Your task to perform on an android device: Add asus zenbook to the cart on amazon.com Image 0: 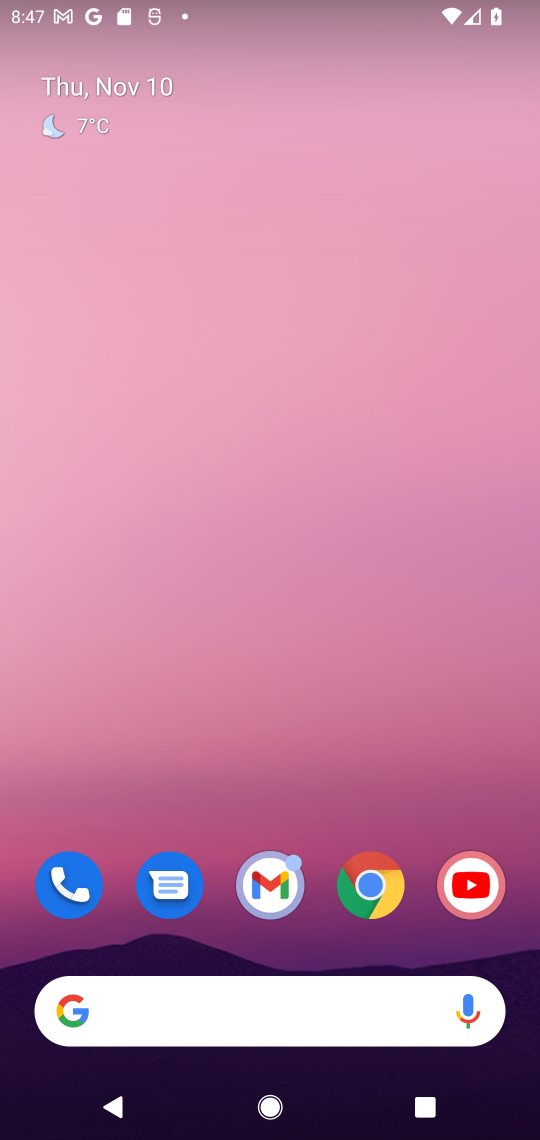
Step 0: click (374, 879)
Your task to perform on an android device: Add asus zenbook to the cart on amazon.com Image 1: 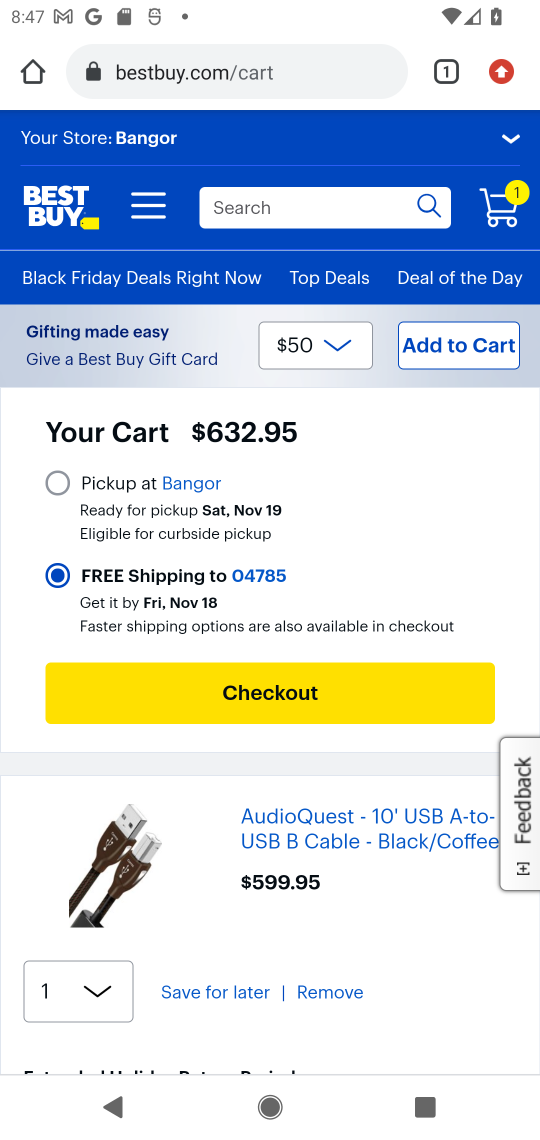
Step 1: click (343, 83)
Your task to perform on an android device: Add asus zenbook to the cart on amazon.com Image 2: 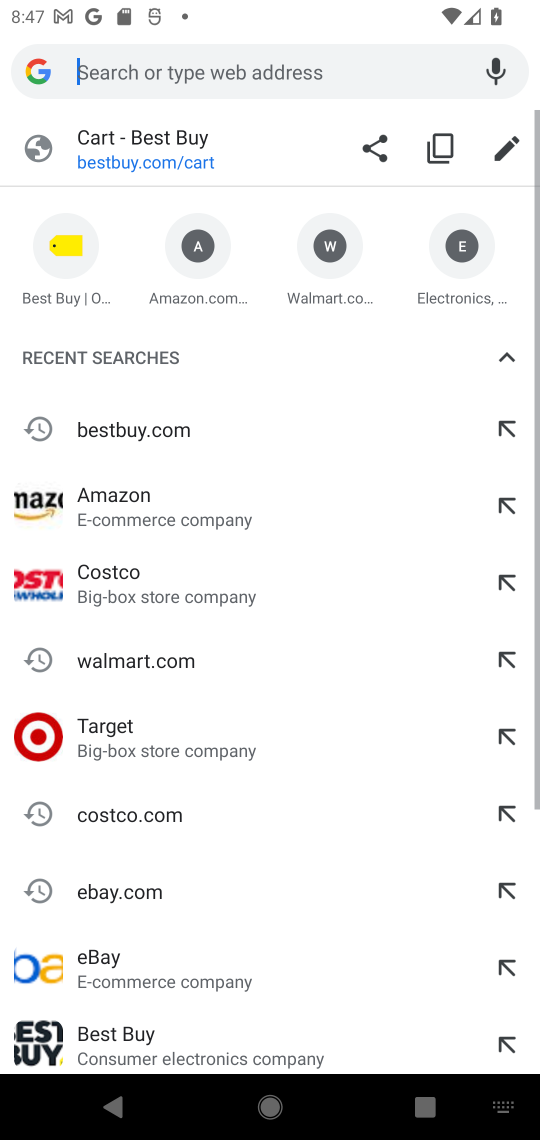
Step 2: click (200, 247)
Your task to perform on an android device: Add asus zenbook to the cart on amazon.com Image 3: 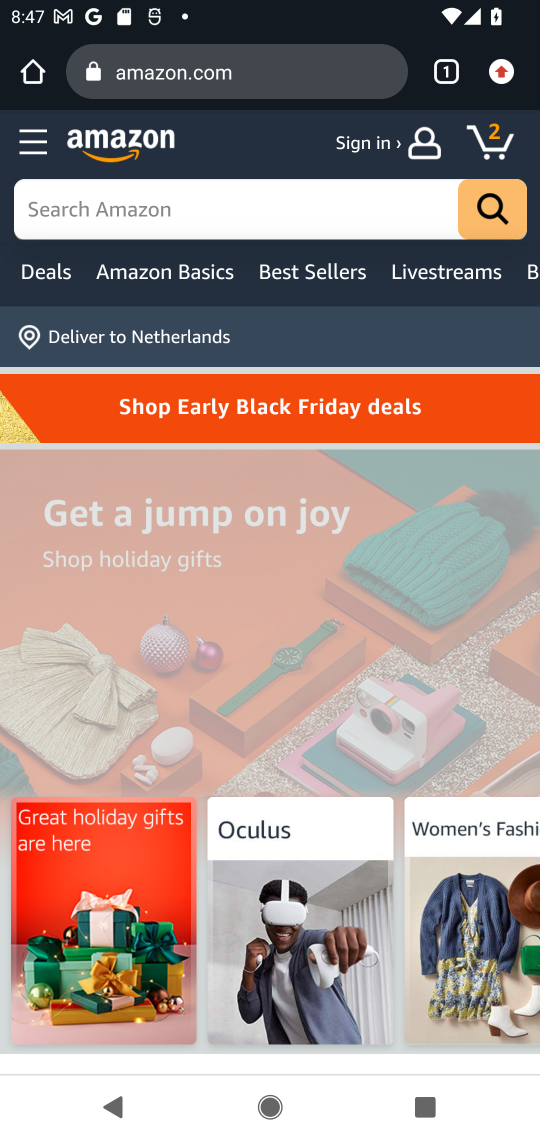
Step 3: click (107, 195)
Your task to perform on an android device: Add asus zenbook to the cart on amazon.com Image 4: 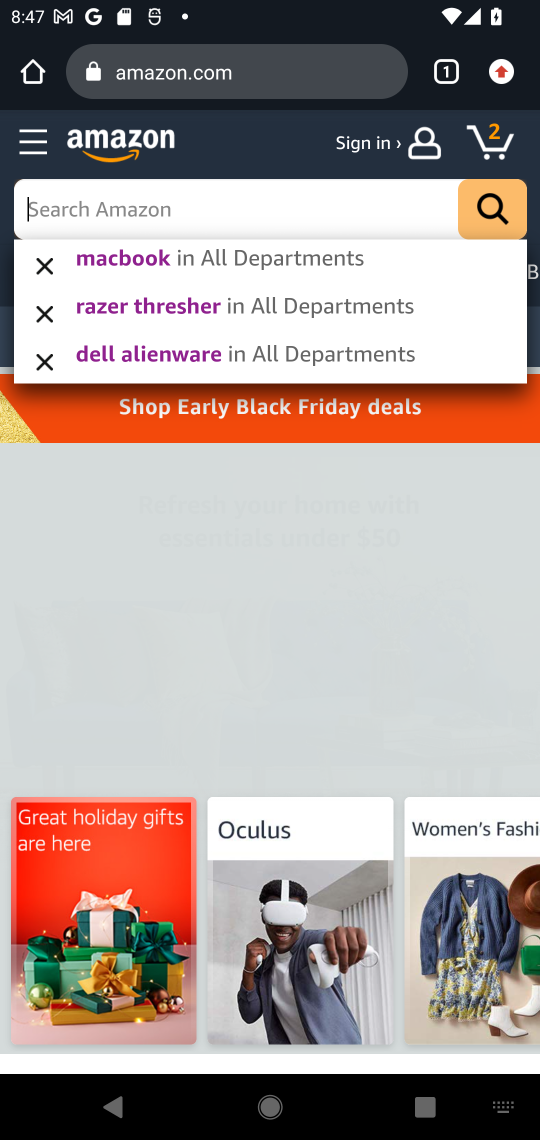
Step 4: type "asus zenbook"
Your task to perform on an android device: Add asus zenbook to the cart on amazon.com Image 5: 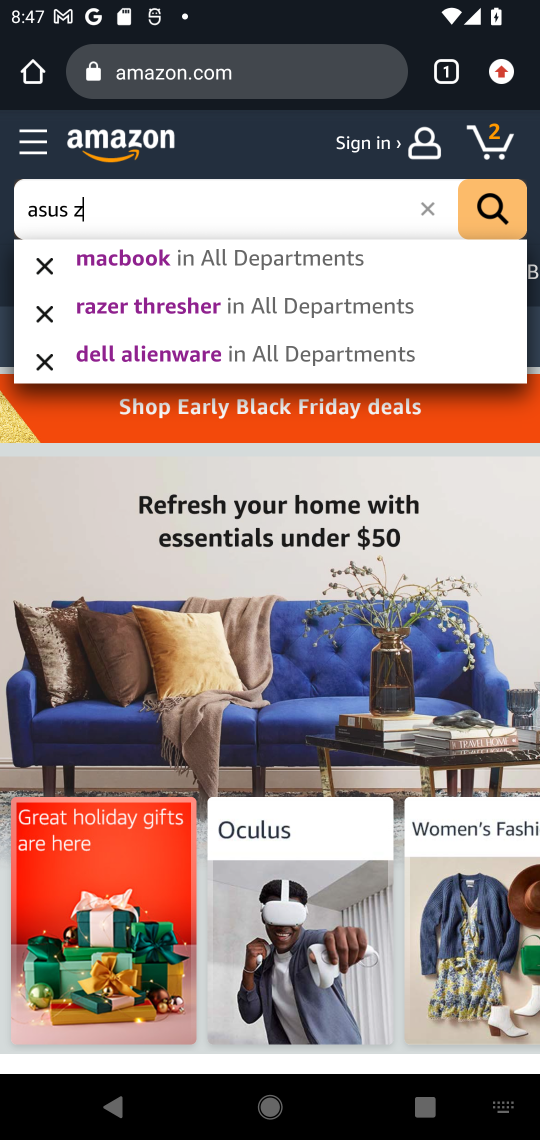
Step 5: press enter
Your task to perform on an android device: Add asus zenbook to the cart on amazon.com Image 6: 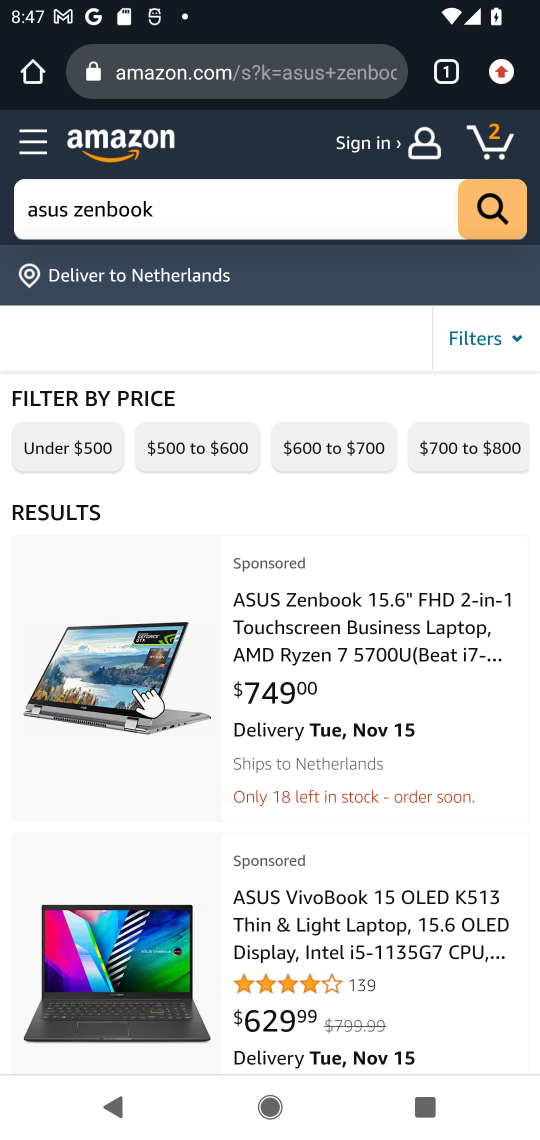
Step 6: click (110, 696)
Your task to perform on an android device: Add asus zenbook to the cart on amazon.com Image 7: 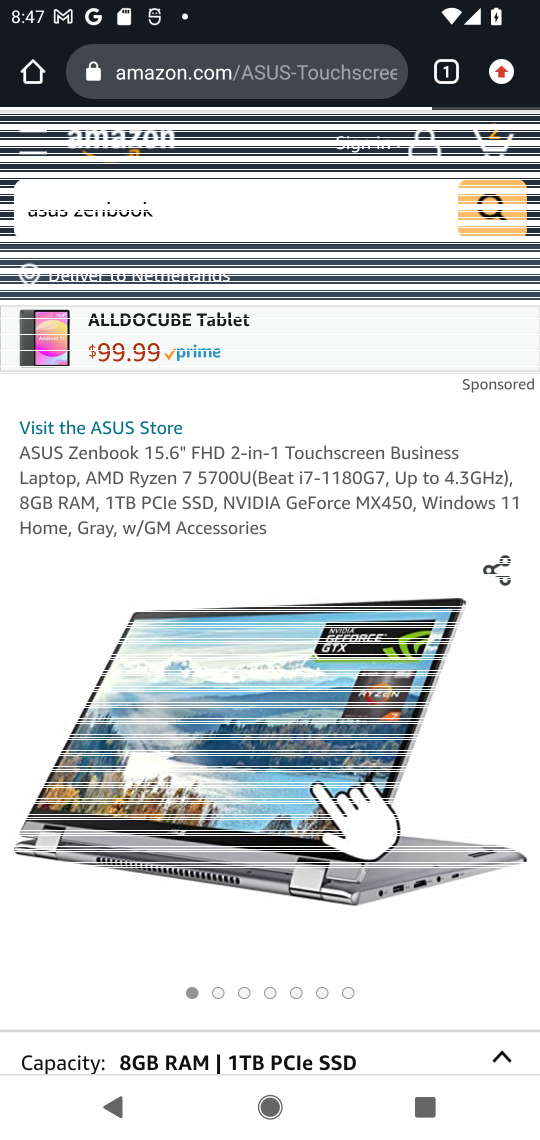
Step 7: drag from (427, 959) to (405, 558)
Your task to perform on an android device: Add asus zenbook to the cart on amazon.com Image 8: 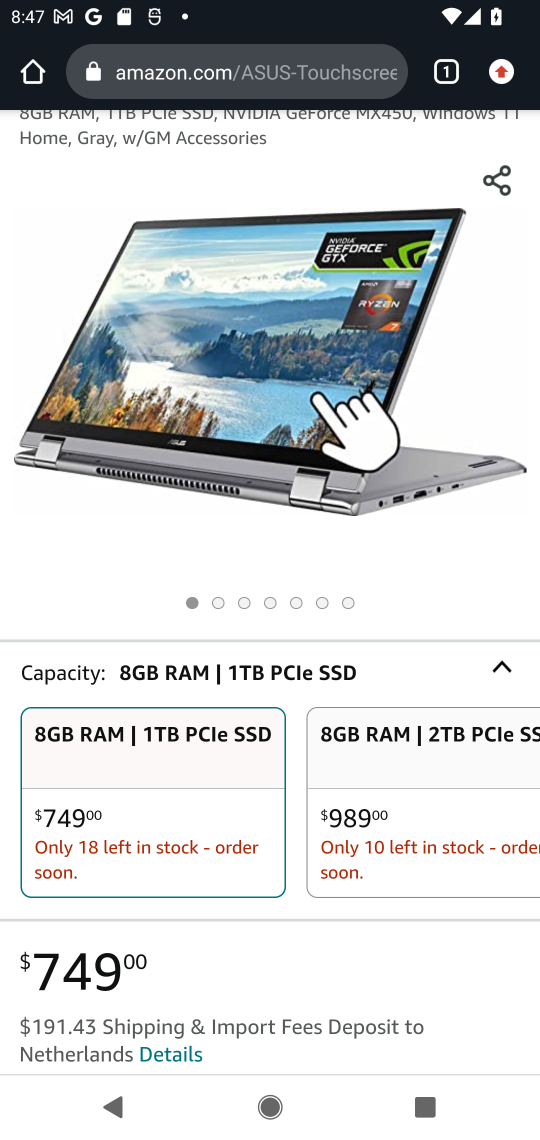
Step 8: drag from (467, 964) to (417, 307)
Your task to perform on an android device: Add asus zenbook to the cart on amazon.com Image 9: 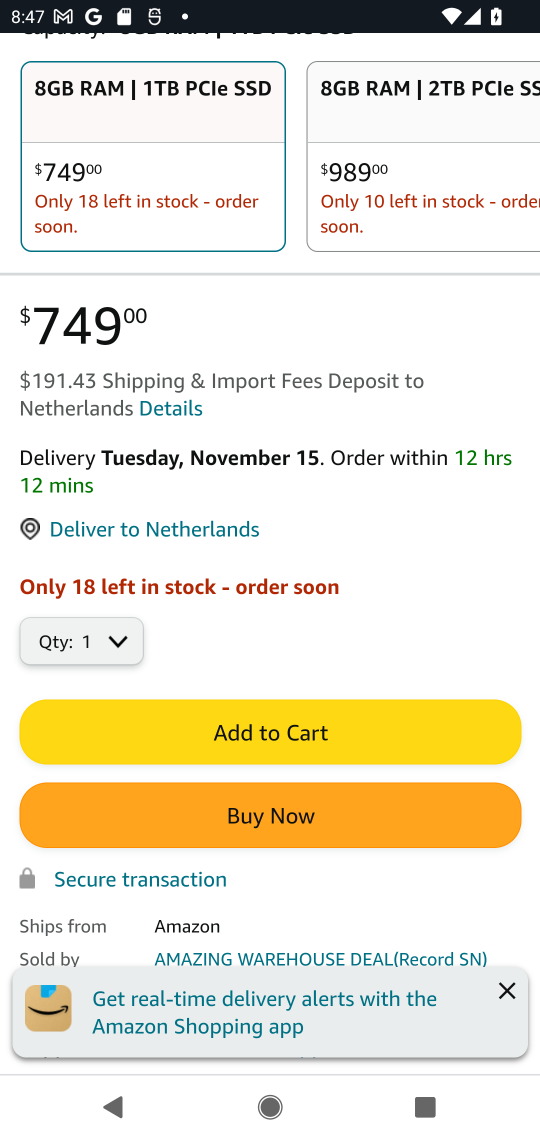
Step 9: click (286, 731)
Your task to perform on an android device: Add asus zenbook to the cart on amazon.com Image 10: 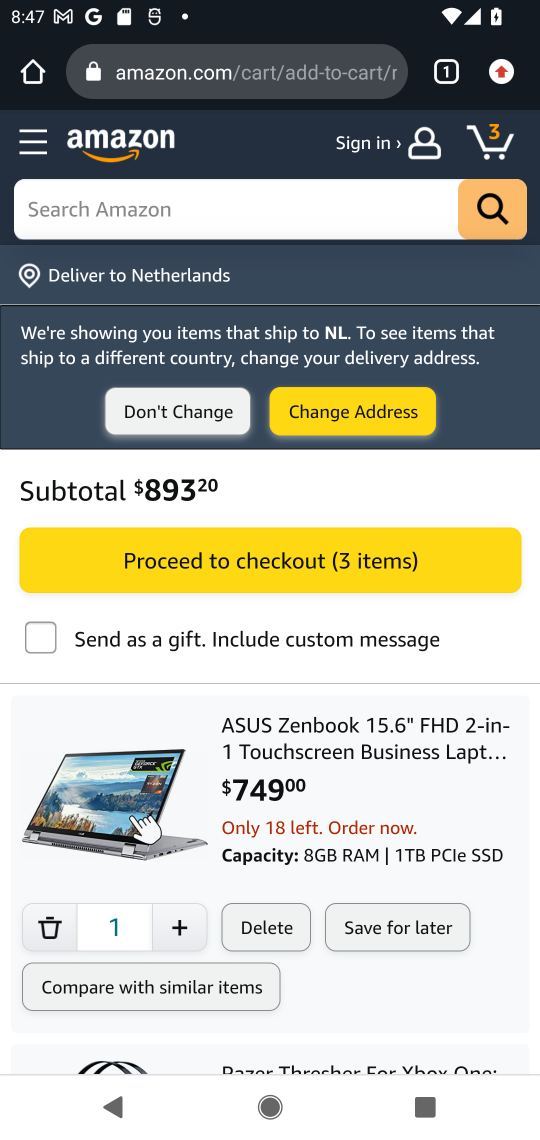
Step 10: task complete